Your task to perform on an android device: When is my next appointment? Image 0: 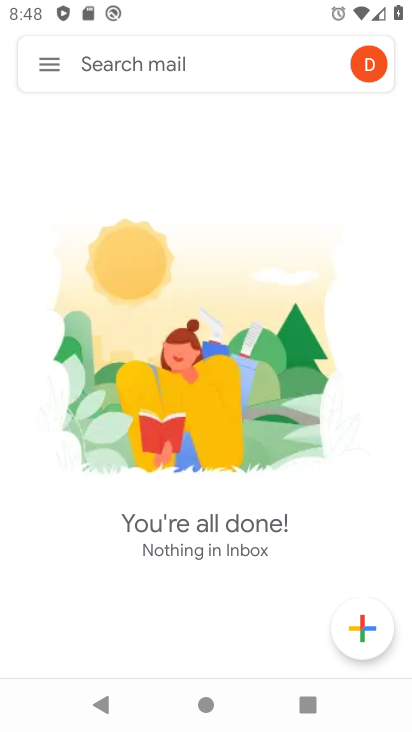
Step 0: press back button
Your task to perform on an android device: When is my next appointment? Image 1: 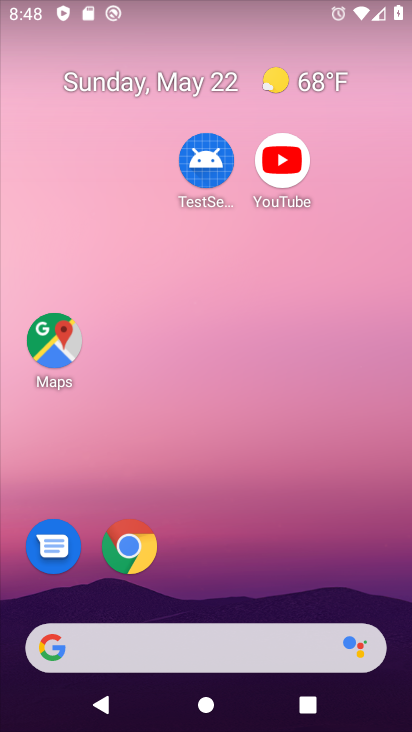
Step 1: drag from (247, 705) to (161, 62)
Your task to perform on an android device: When is my next appointment? Image 2: 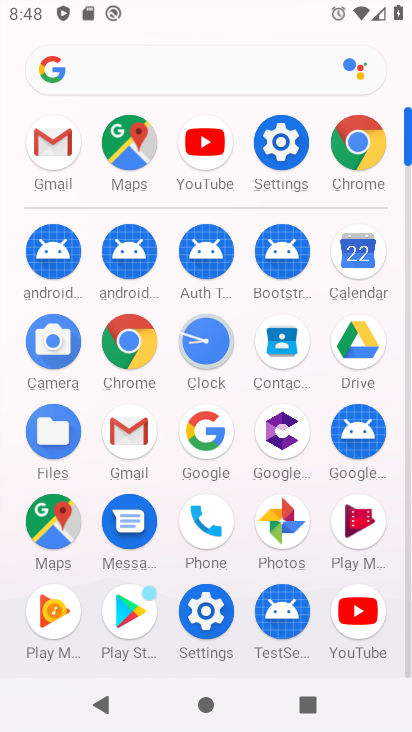
Step 2: click (356, 242)
Your task to perform on an android device: When is my next appointment? Image 3: 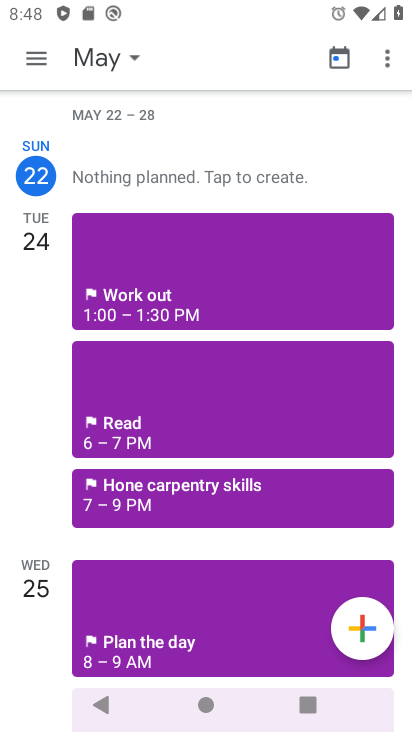
Step 3: task complete